Your task to perform on an android device: Open CNN.com Image 0: 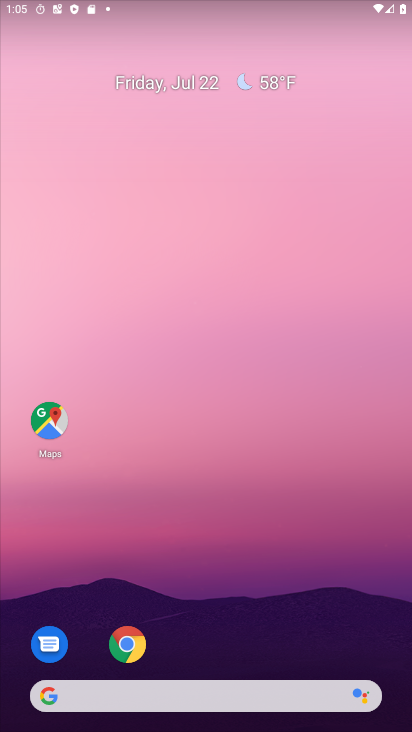
Step 0: drag from (209, 580) to (245, 363)
Your task to perform on an android device: Open CNN.com Image 1: 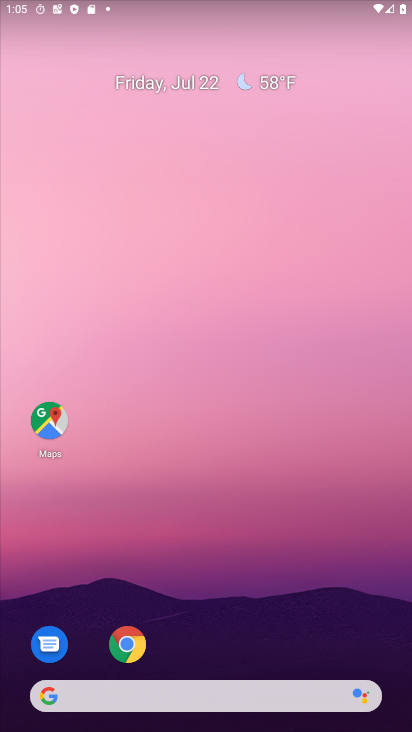
Step 1: drag from (228, 674) to (279, 308)
Your task to perform on an android device: Open CNN.com Image 2: 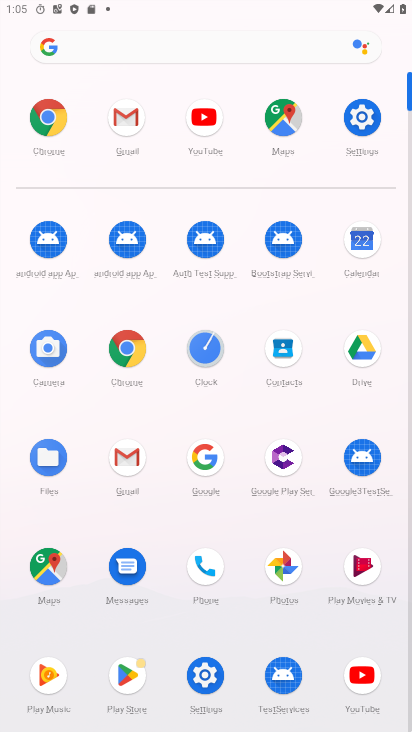
Step 2: click (190, 29)
Your task to perform on an android device: Open CNN.com Image 3: 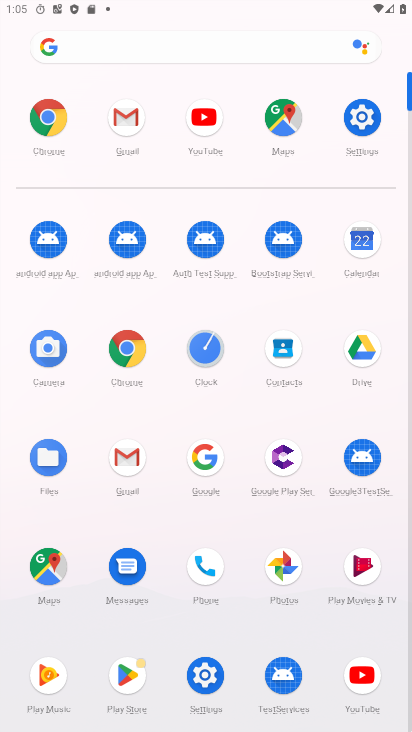
Step 3: click (176, 36)
Your task to perform on an android device: Open CNN.com Image 4: 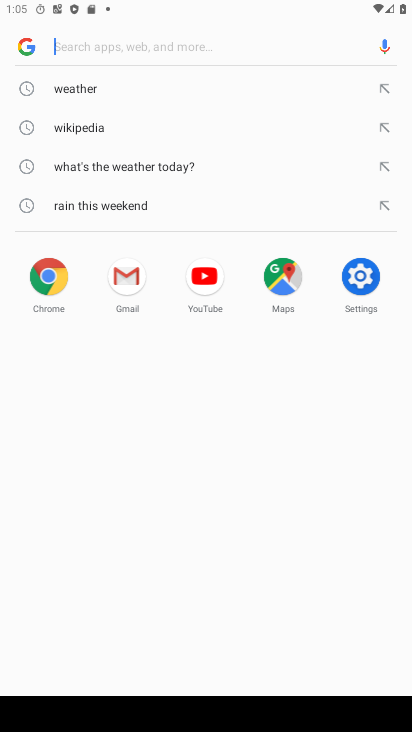
Step 4: type "CNN.com"
Your task to perform on an android device: Open CNN.com Image 5: 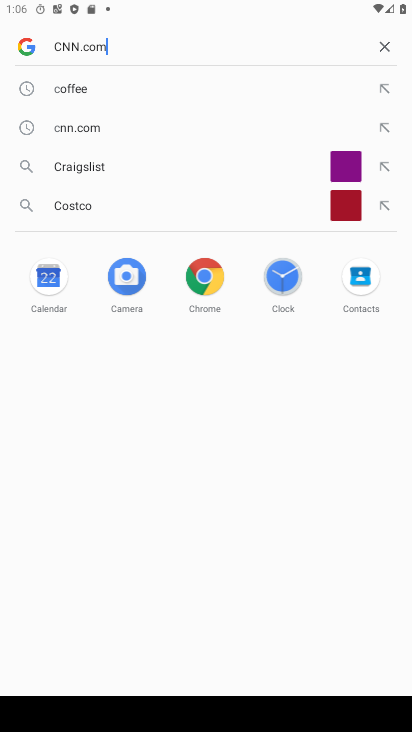
Step 5: type ""
Your task to perform on an android device: Open CNN.com Image 6: 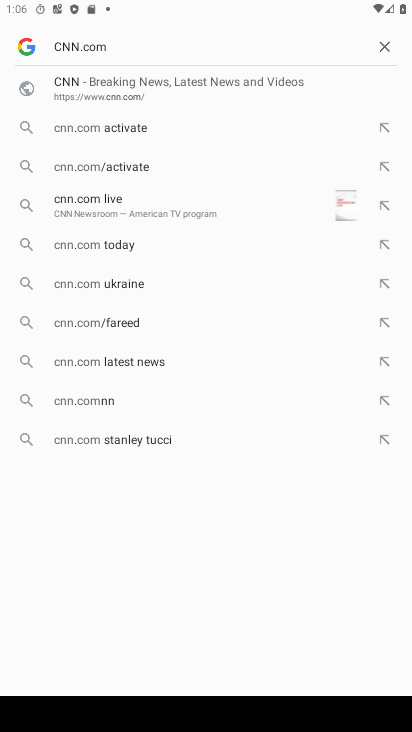
Step 6: click (135, 77)
Your task to perform on an android device: Open CNN.com Image 7: 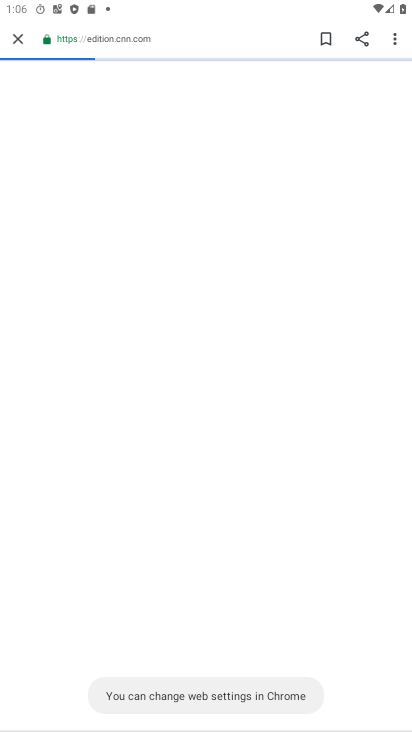
Step 7: task complete